Your task to perform on an android device: toggle notification dots Image 0: 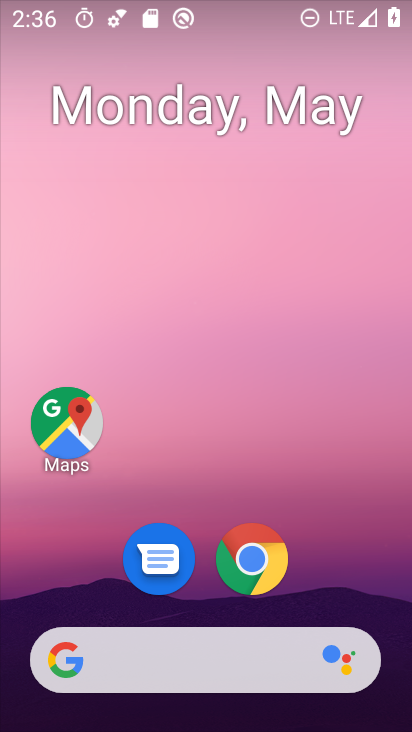
Step 0: drag from (358, 587) to (393, 31)
Your task to perform on an android device: toggle notification dots Image 1: 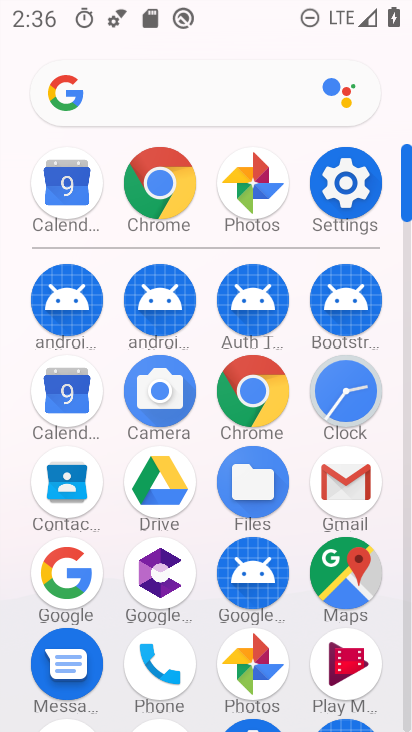
Step 1: click (349, 187)
Your task to perform on an android device: toggle notification dots Image 2: 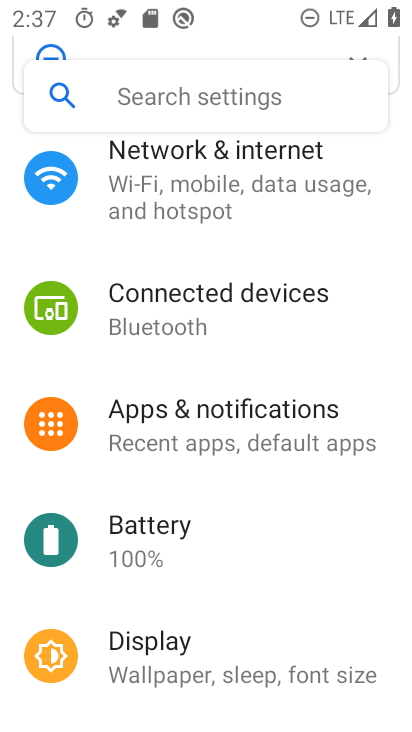
Step 2: click (236, 422)
Your task to perform on an android device: toggle notification dots Image 3: 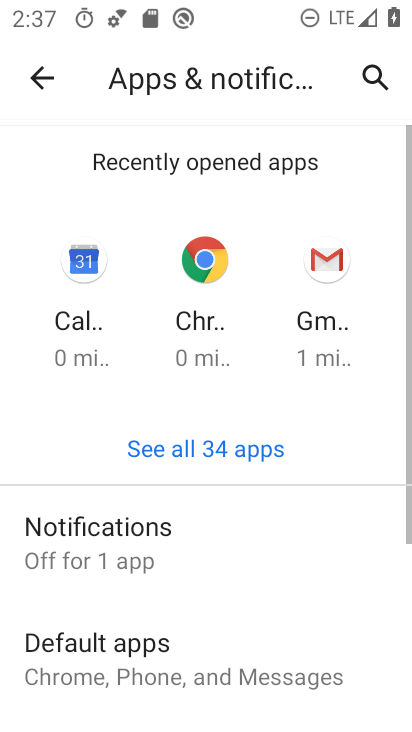
Step 3: drag from (210, 522) to (221, 208)
Your task to perform on an android device: toggle notification dots Image 4: 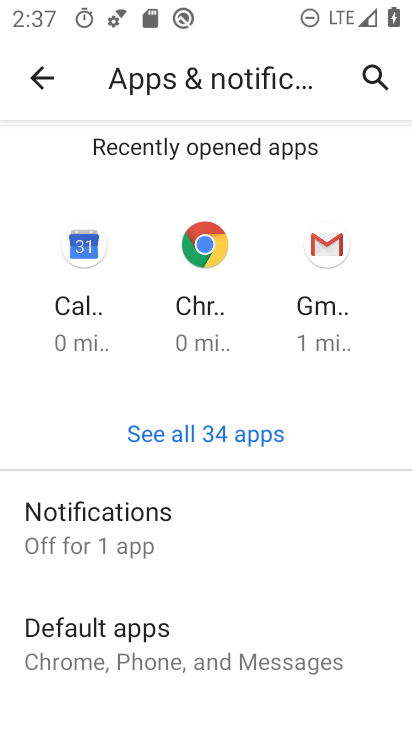
Step 4: click (92, 534)
Your task to perform on an android device: toggle notification dots Image 5: 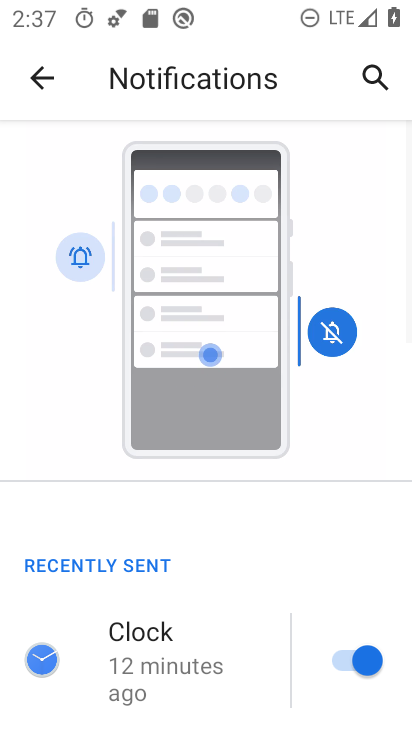
Step 5: drag from (249, 602) to (254, 97)
Your task to perform on an android device: toggle notification dots Image 6: 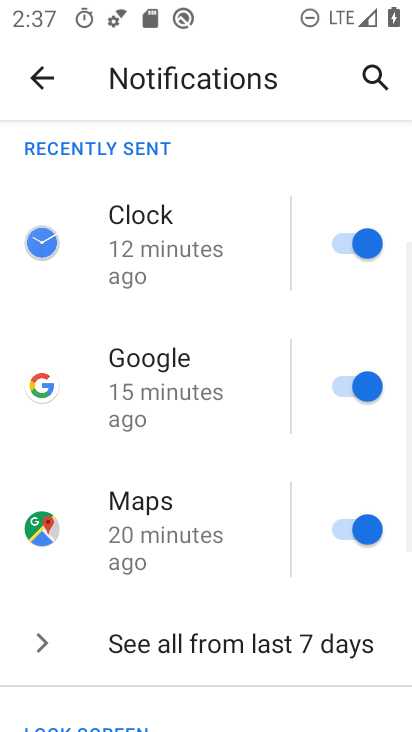
Step 6: drag from (182, 518) to (168, 127)
Your task to perform on an android device: toggle notification dots Image 7: 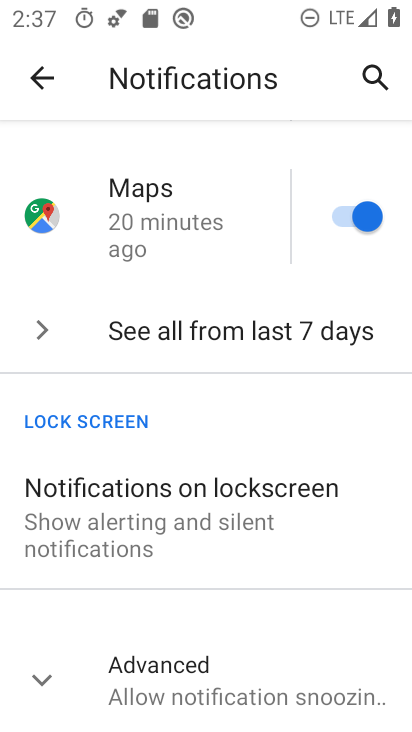
Step 7: drag from (173, 572) to (169, 210)
Your task to perform on an android device: toggle notification dots Image 8: 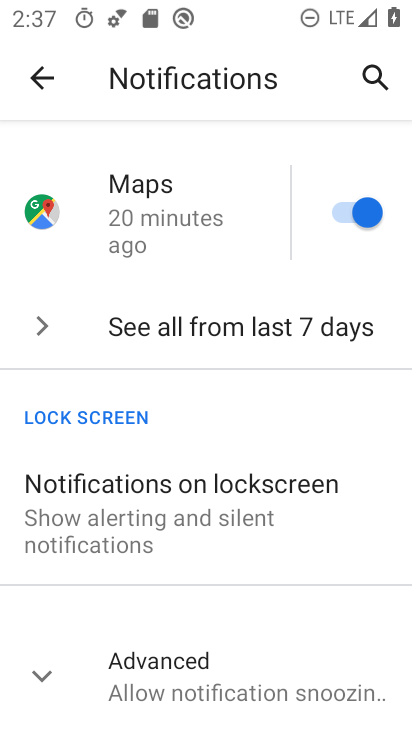
Step 8: click (42, 691)
Your task to perform on an android device: toggle notification dots Image 9: 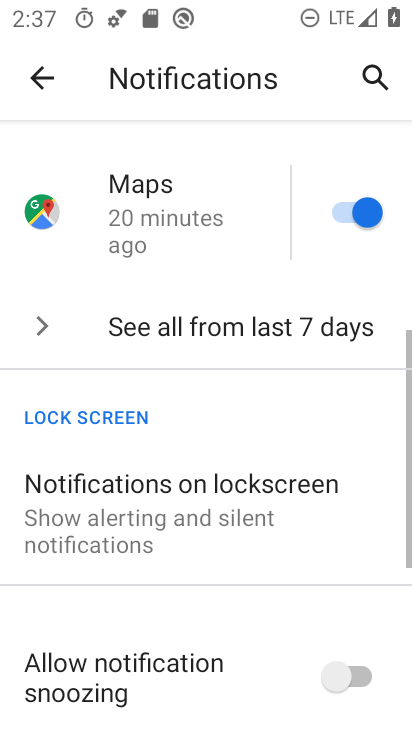
Step 9: drag from (170, 675) to (184, 184)
Your task to perform on an android device: toggle notification dots Image 10: 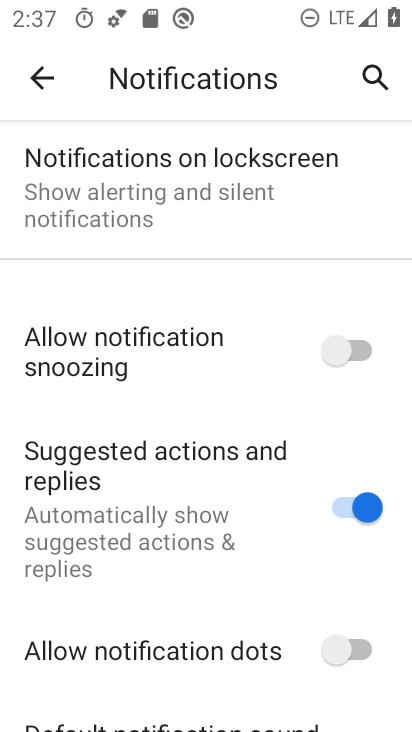
Step 10: drag from (191, 592) to (180, 243)
Your task to perform on an android device: toggle notification dots Image 11: 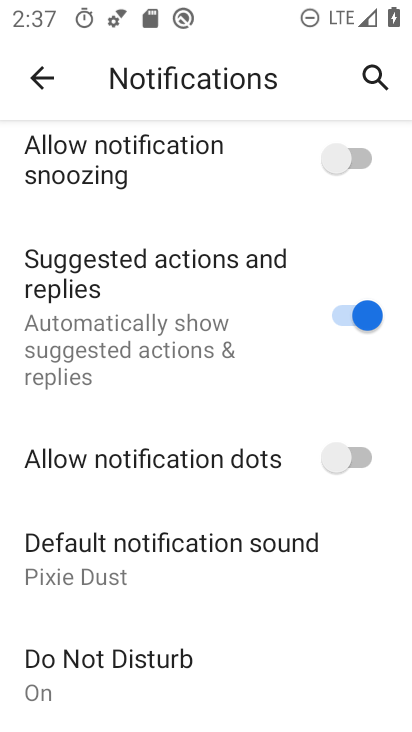
Step 11: click (348, 472)
Your task to perform on an android device: toggle notification dots Image 12: 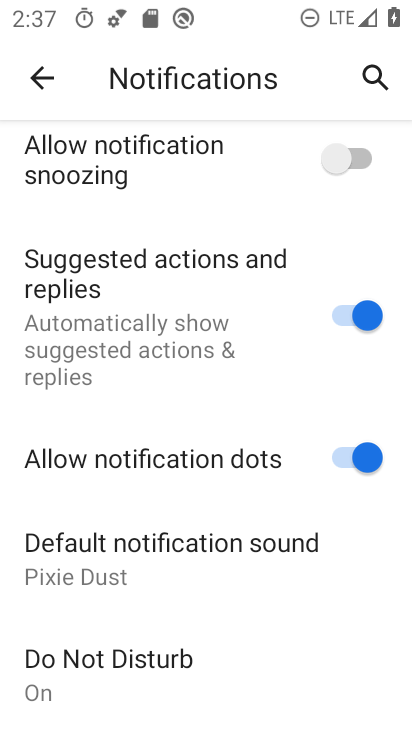
Step 12: task complete